Your task to perform on an android device: find photos in the google photos app Image 0: 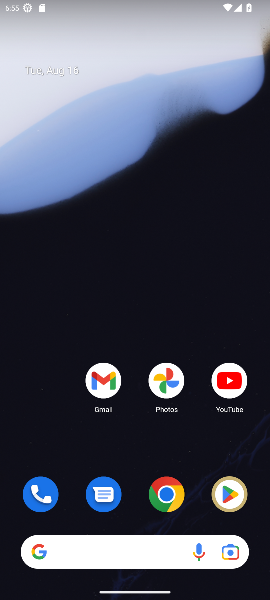
Step 0: drag from (67, 407) to (66, 175)
Your task to perform on an android device: find photos in the google photos app Image 1: 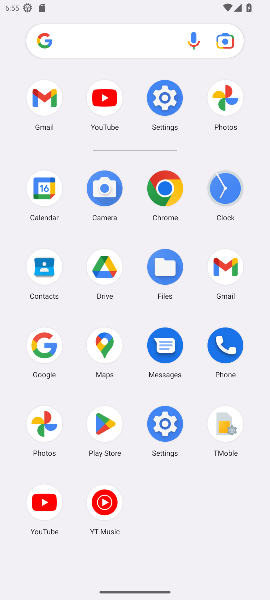
Step 1: click (50, 351)
Your task to perform on an android device: find photos in the google photos app Image 2: 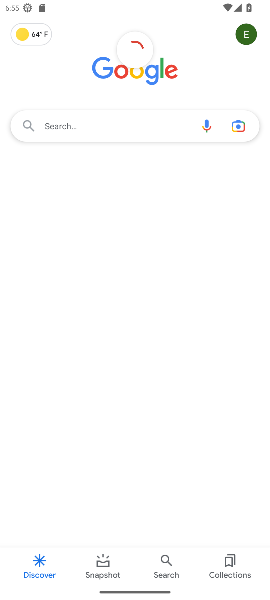
Step 2: task complete